Your task to perform on an android device: Open CNN.com Image 0: 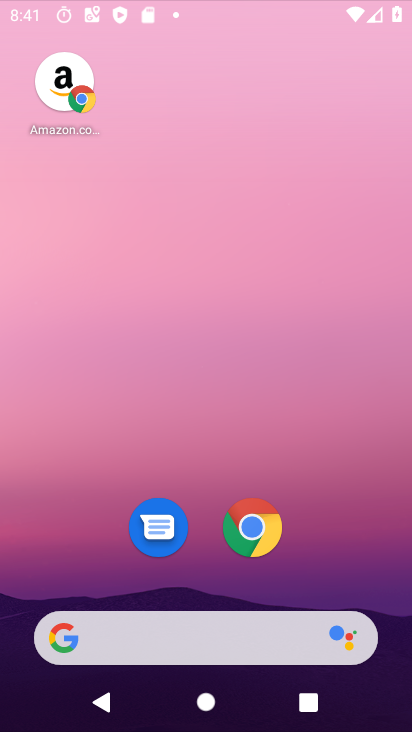
Step 0: drag from (344, 602) to (411, 468)
Your task to perform on an android device: Open CNN.com Image 1: 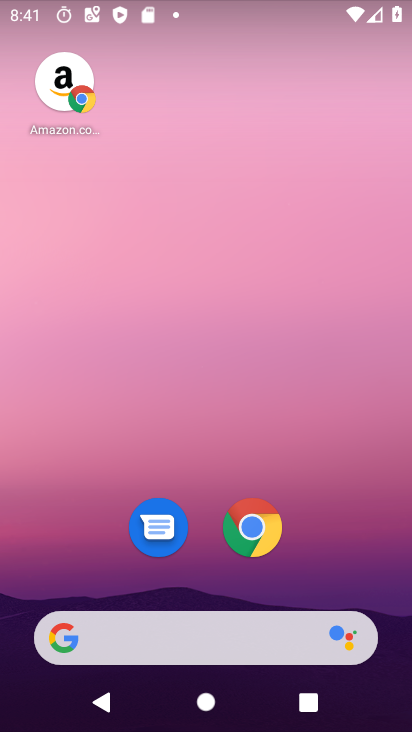
Step 1: drag from (333, 503) to (268, 0)
Your task to perform on an android device: Open CNN.com Image 2: 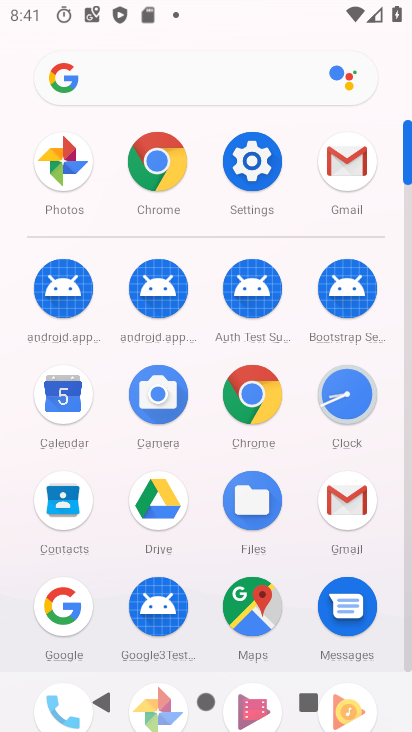
Step 2: click (155, 182)
Your task to perform on an android device: Open CNN.com Image 3: 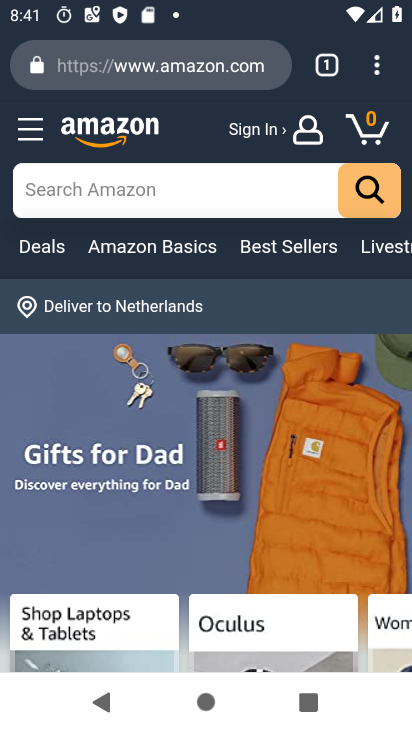
Step 3: click (160, 77)
Your task to perform on an android device: Open CNN.com Image 4: 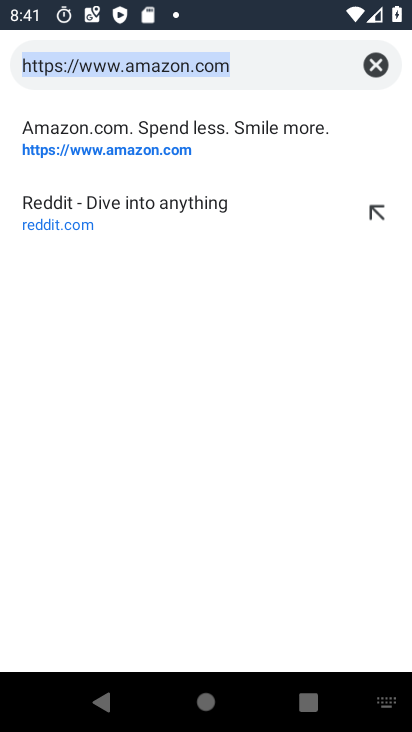
Step 4: click (372, 76)
Your task to perform on an android device: Open CNN.com Image 5: 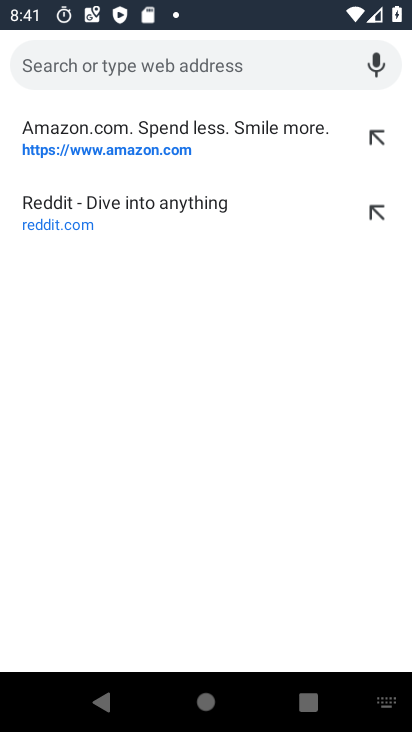
Step 5: type "cnn"
Your task to perform on an android device: Open CNN.com Image 6: 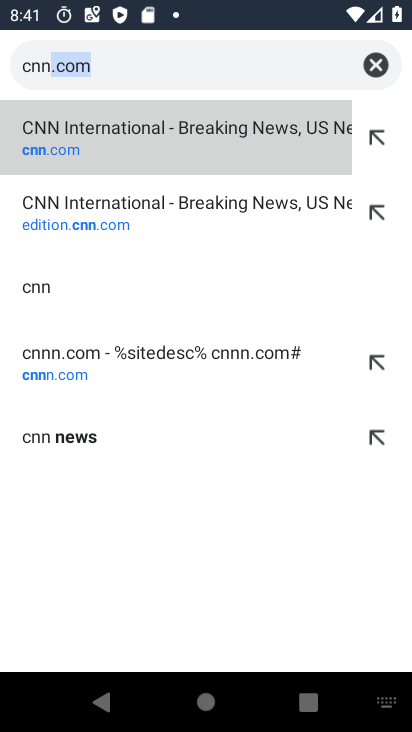
Step 6: click (143, 139)
Your task to perform on an android device: Open CNN.com Image 7: 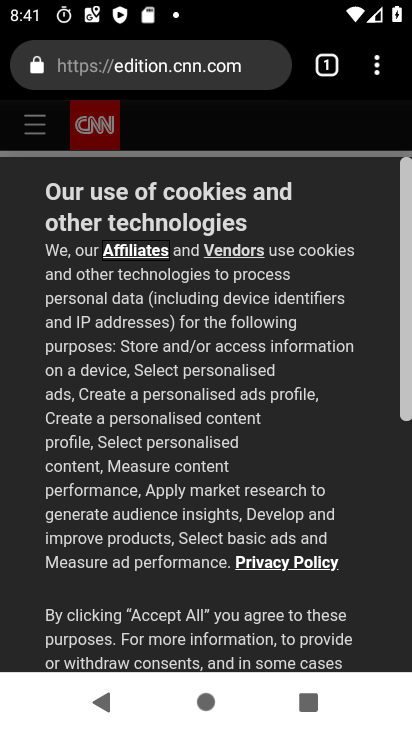
Step 7: task complete